Your task to perform on an android device: turn off notifications settings in the gmail app Image 0: 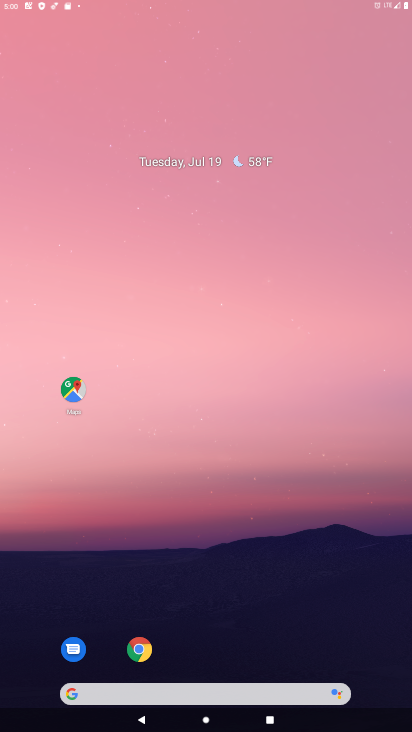
Step 0: press home button
Your task to perform on an android device: turn off notifications settings in the gmail app Image 1: 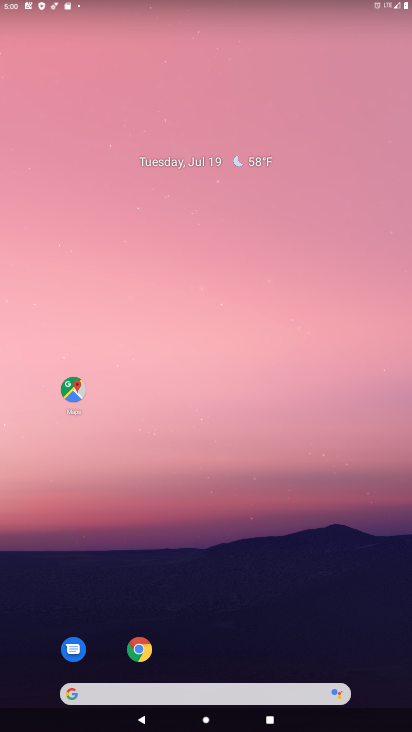
Step 1: drag from (189, 652) to (229, 98)
Your task to perform on an android device: turn off notifications settings in the gmail app Image 2: 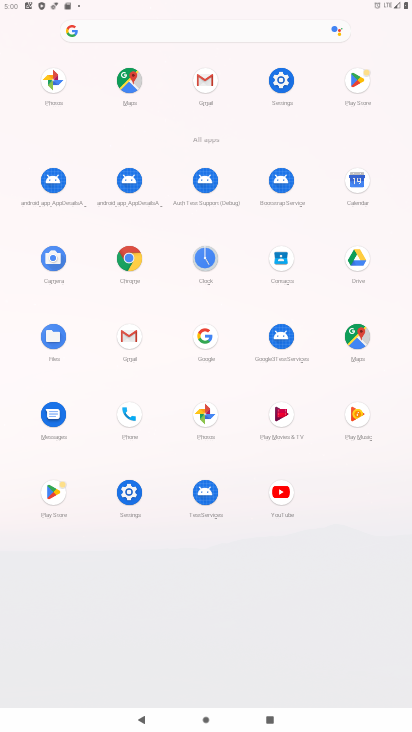
Step 2: click (216, 74)
Your task to perform on an android device: turn off notifications settings in the gmail app Image 3: 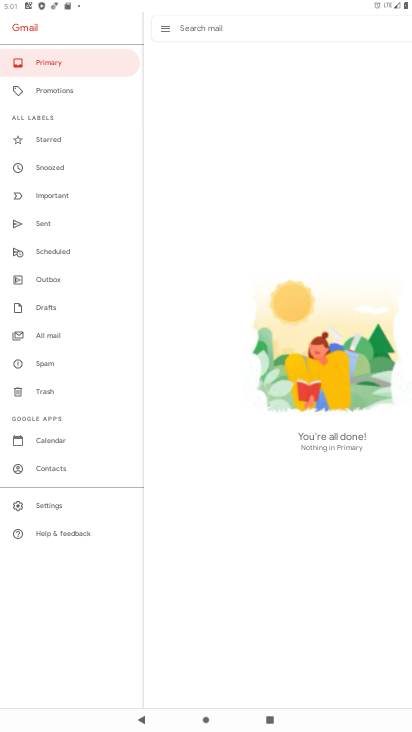
Step 3: click (46, 514)
Your task to perform on an android device: turn off notifications settings in the gmail app Image 4: 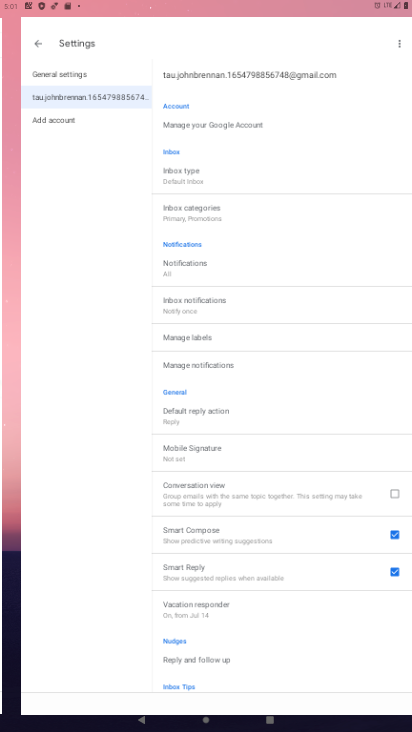
Step 4: click (49, 503)
Your task to perform on an android device: turn off notifications settings in the gmail app Image 5: 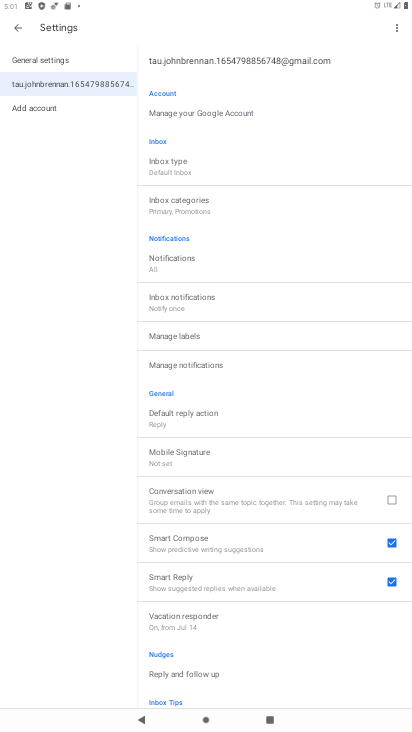
Step 5: click (173, 363)
Your task to perform on an android device: turn off notifications settings in the gmail app Image 6: 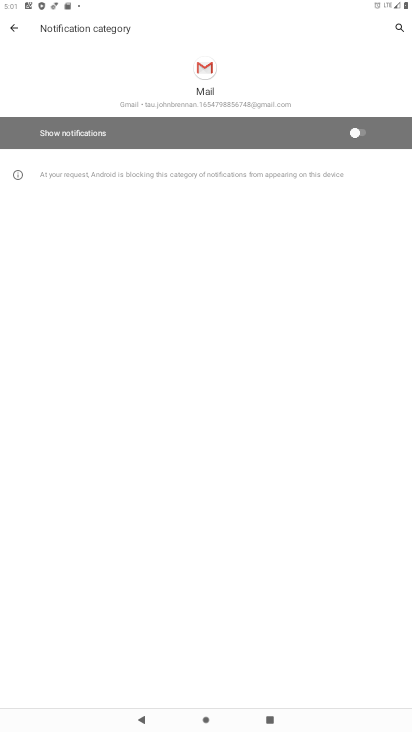
Step 6: click (201, 361)
Your task to perform on an android device: turn off notifications settings in the gmail app Image 7: 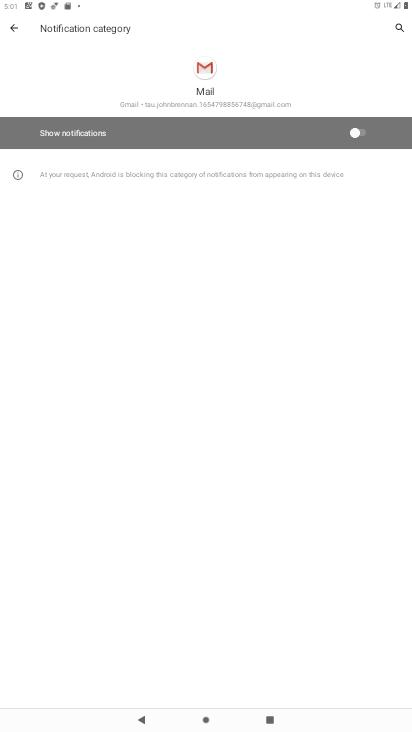
Step 7: task complete